Your task to perform on an android device: Do I have any events today? Image 0: 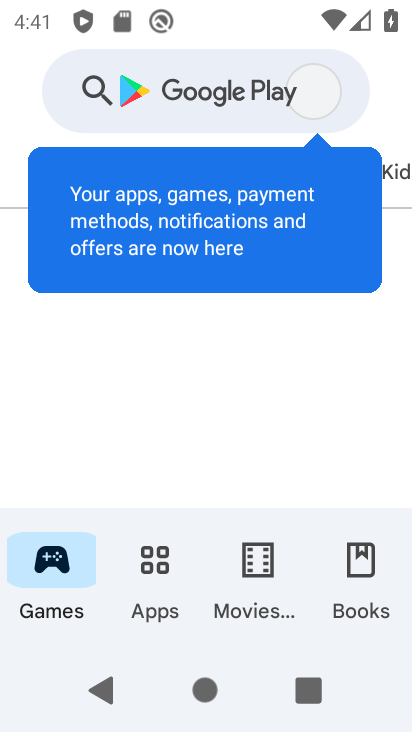
Step 0: press home button
Your task to perform on an android device: Do I have any events today? Image 1: 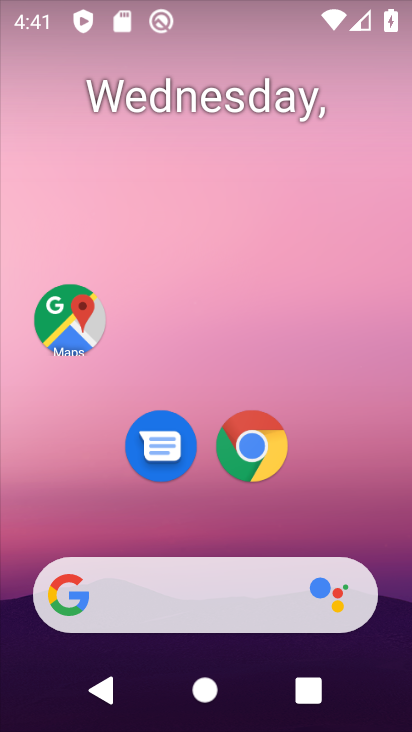
Step 1: drag from (333, 523) to (386, 14)
Your task to perform on an android device: Do I have any events today? Image 2: 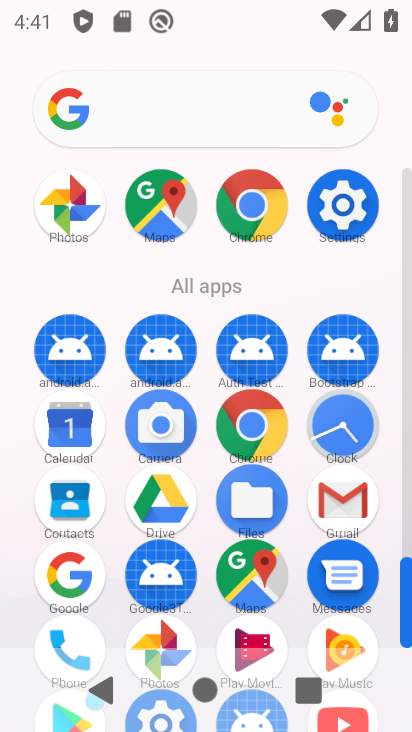
Step 2: click (54, 435)
Your task to perform on an android device: Do I have any events today? Image 3: 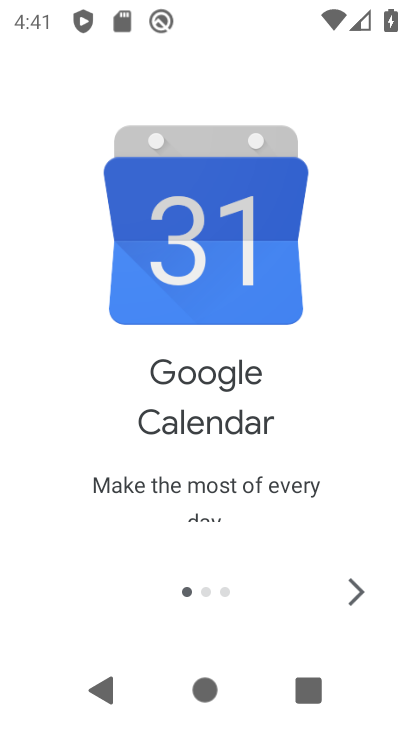
Step 3: click (350, 597)
Your task to perform on an android device: Do I have any events today? Image 4: 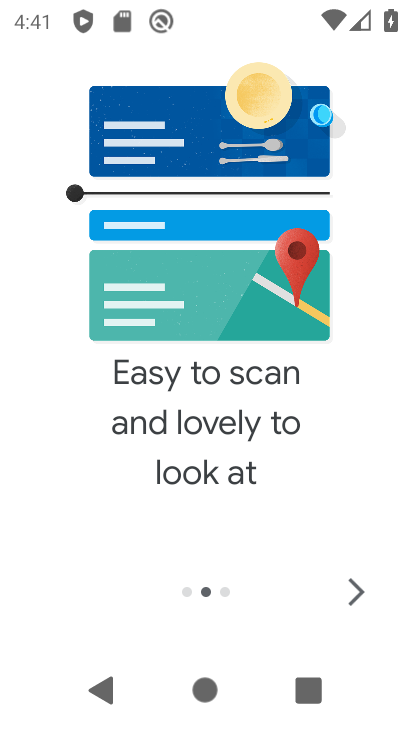
Step 4: click (351, 595)
Your task to perform on an android device: Do I have any events today? Image 5: 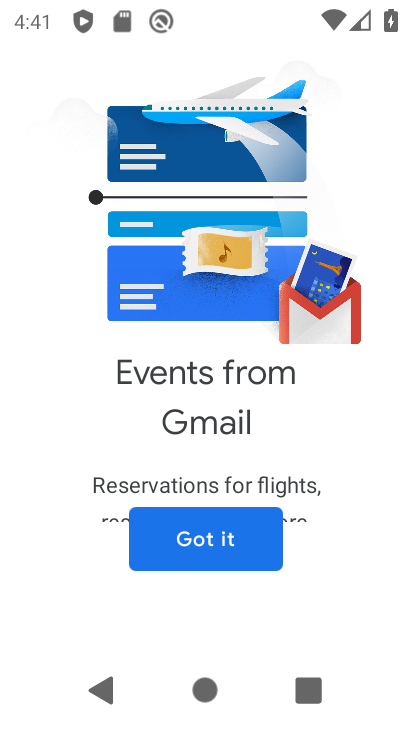
Step 5: click (158, 542)
Your task to perform on an android device: Do I have any events today? Image 6: 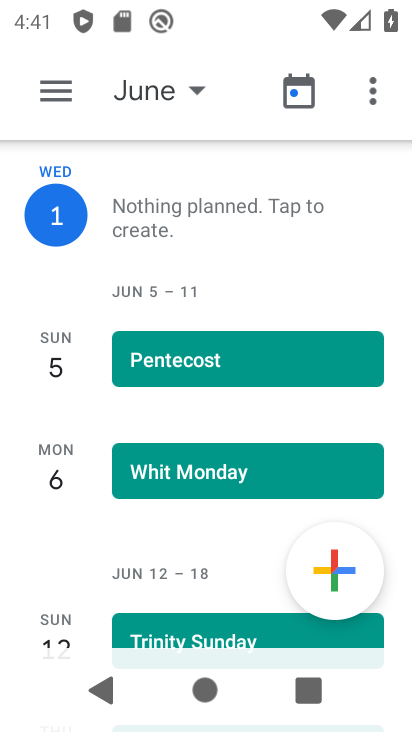
Step 6: click (175, 103)
Your task to perform on an android device: Do I have any events today? Image 7: 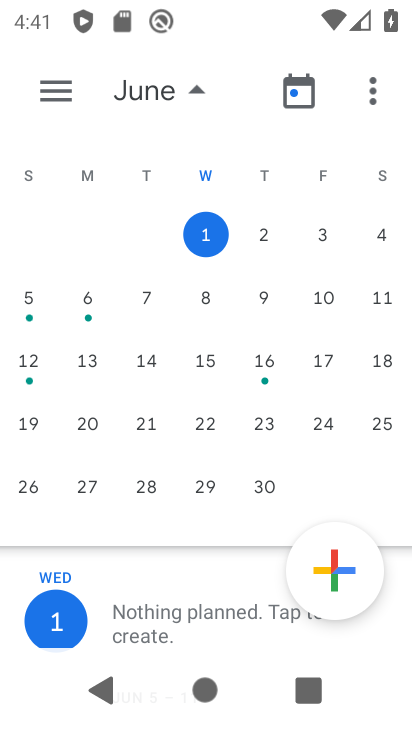
Step 7: click (44, 91)
Your task to perform on an android device: Do I have any events today? Image 8: 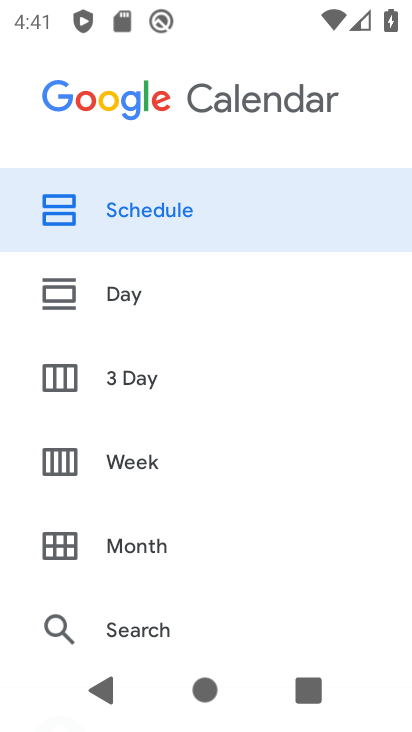
Step 8: click (140, 196)
Your task to perform on an android device: Do I have any events today? Image 9: 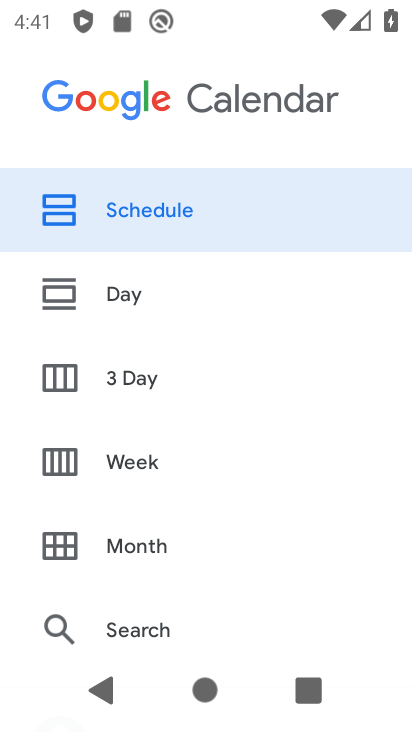
Step 9: click (264, 224)
Your task to perform on an android device: Do I have any events today? Image 10: 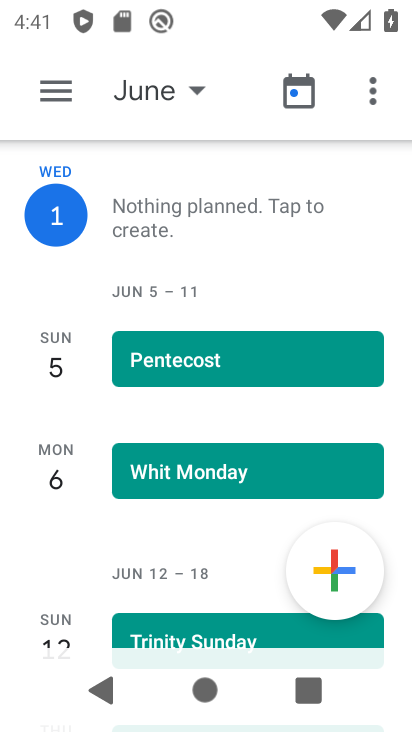
Step 10: task complete